Your task to perform on an android device: allow notifications from all sites in the chrome app Image 0: 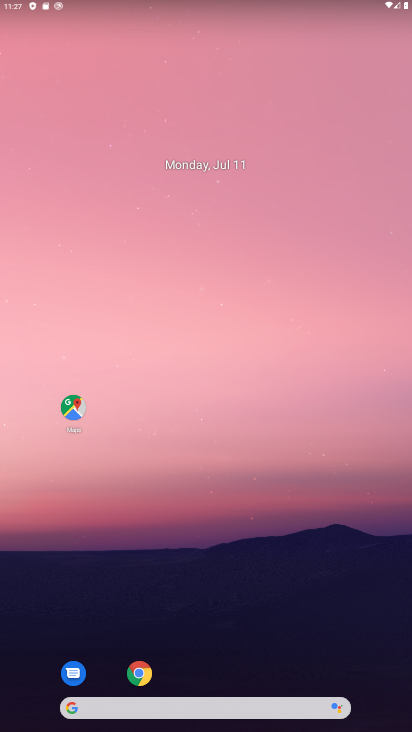
Step 0: drag from (228, 539) to (258, 288)
Your task to perform on an android device: allow notifications from all sites in the chrome app Image 1: 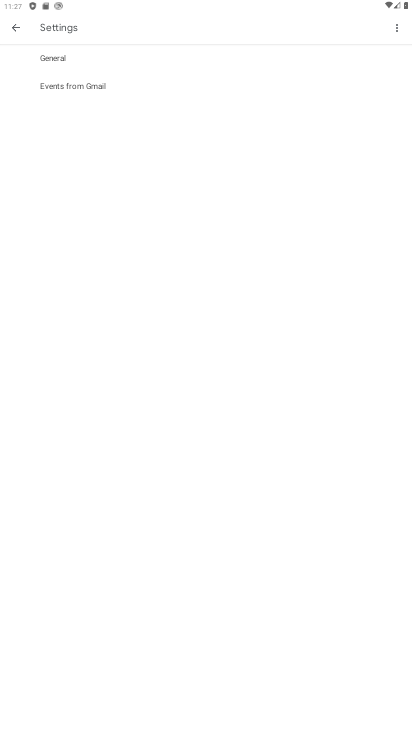
Step 1: press home button
Your task to perform on an android device: allow notifications from all sites in the chrome app Image 2: 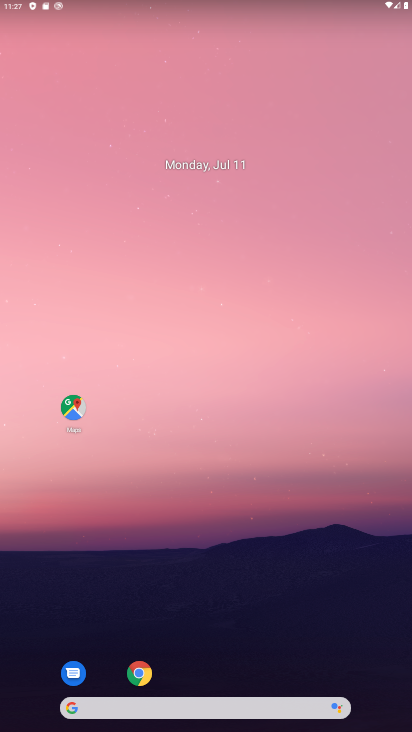
Step 2: drag from (140, 692) to (167, 375)
Your task to perform on an android device: allow notifications from all sites in the chrome app Image 3: 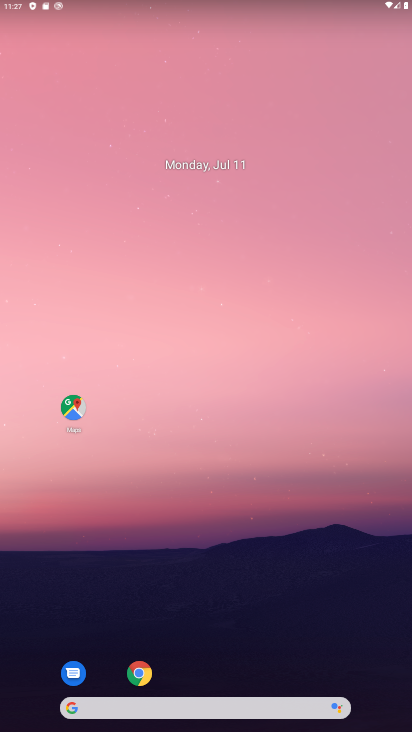
Step 3: drag from (232, 684) to (232, 227)
Your task to perform on an android device: allow notifications from all sites in the chrome app Image 4: 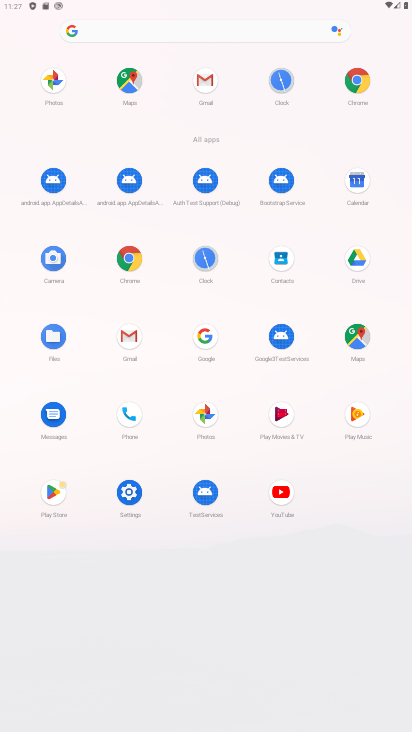
Step 4: click (128, 263)
Your task to perform on an android device: allow notifications from all sites in the chrome app Image 5: 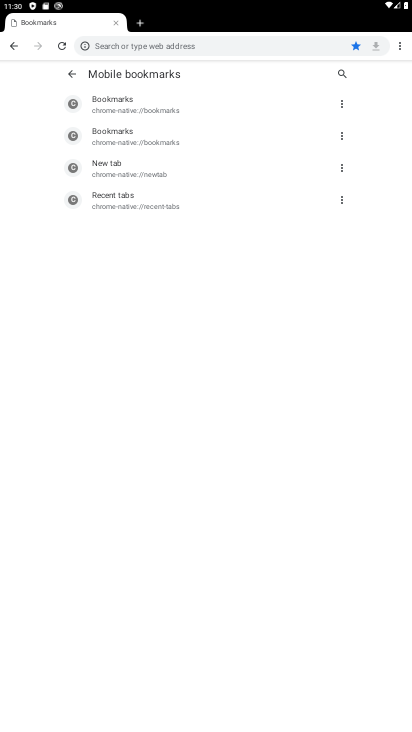
Step 5: press home button
Your task to perform on an android device: allow notifications from all sites in the chrome app Image 6: 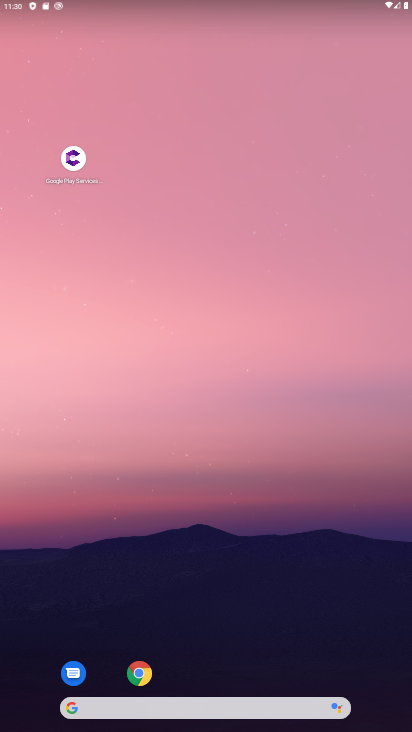
Step 6: click (136, 671)
Your task to perform on an android device: allow notifications from all sites in the chrome app Image 7: 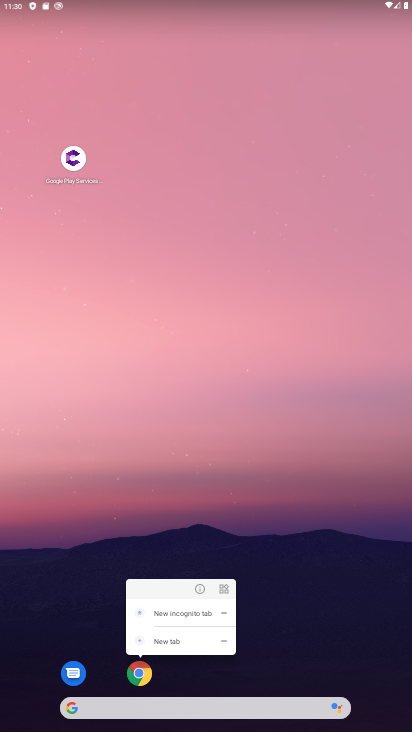
Step 7: click (136, 671)
Your task to perform on an android device: allow notifications from all sites in the chrome app Image 8: 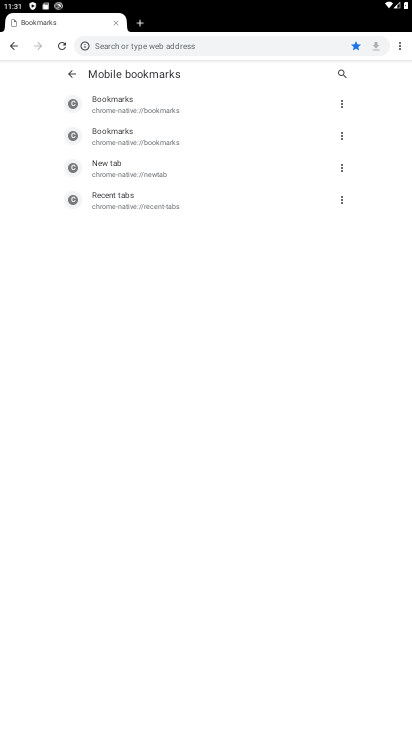
Step 8: click (13, 46)
Your task to perform on an android device: allow notifications from all sites in the chrome app Image 9: 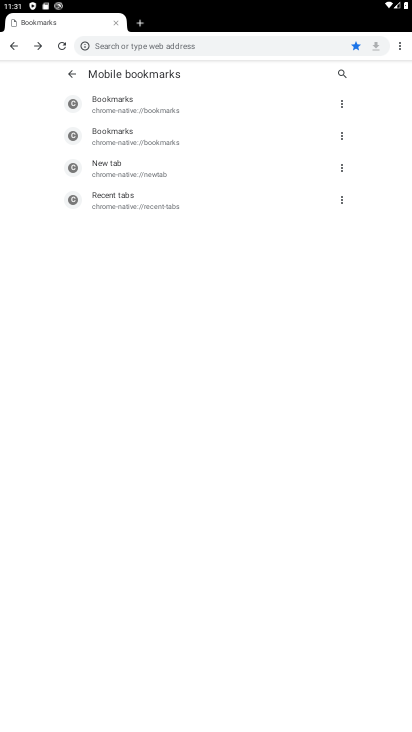
Step 9: click (12, 42)
Your task to perform on an android device: allow notifications from all sites in the chrome app Image 10: 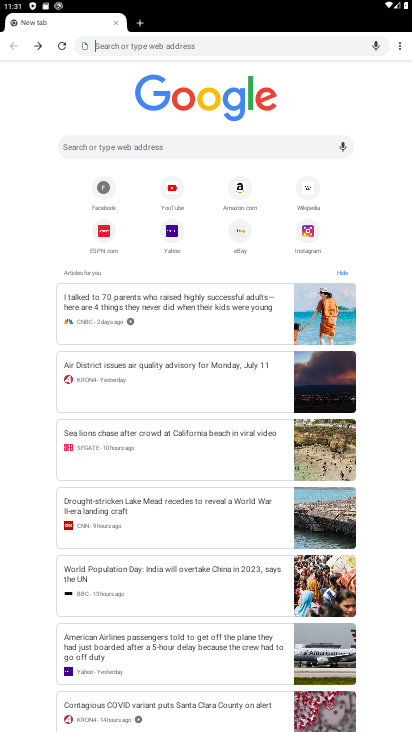
Step 10: click (400, 42)
Your task to perform on an android device: allow notifications from all sites in the chrome app Image 11: 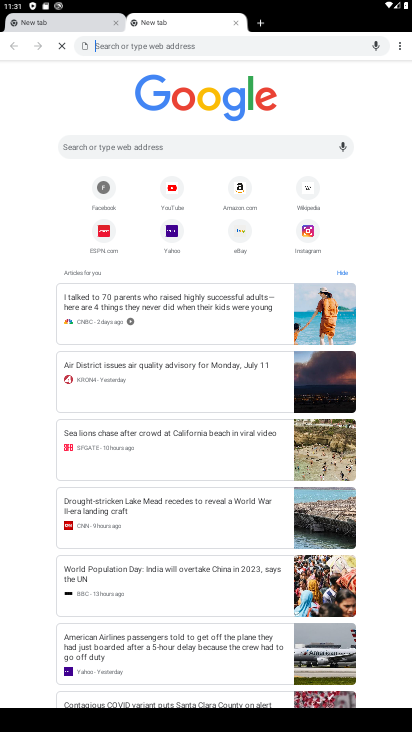
Step 11: click (400, 42)
Your task to perform on an android device: allow notifications from all sites in the chrome app Image 12: 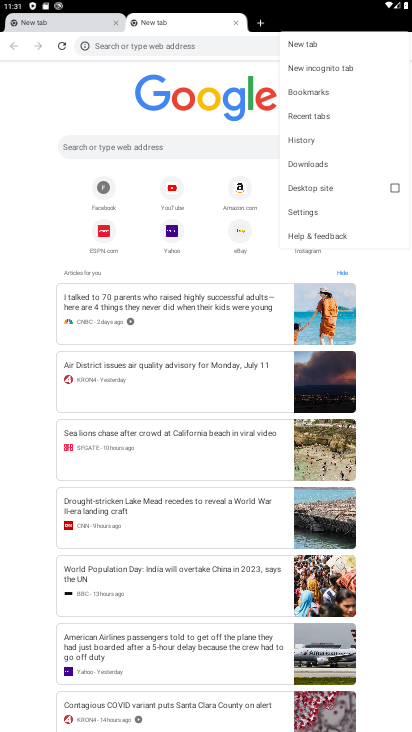
Step 12: click (303, 213)
Your task to perform on an android device: allow notifications from all sites in the chrome app Image 13: 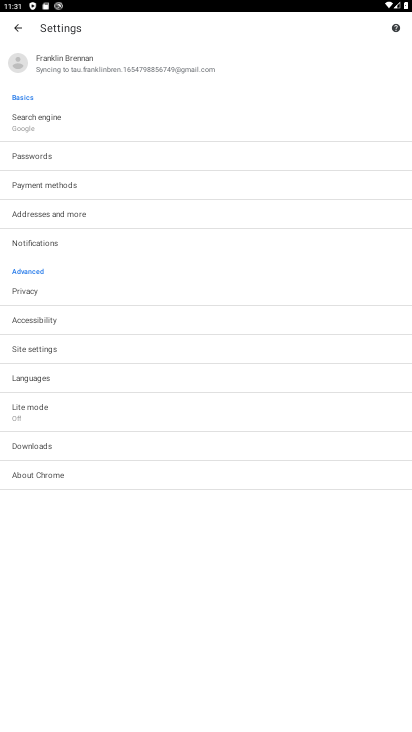
Step 13: click (19, 346)
Your task to perform on an android device: allow notifications from all sites in the chrome app Image 14: 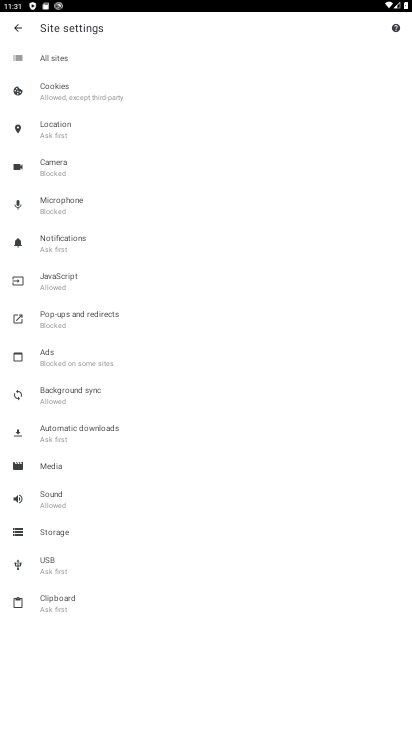
Step 14: click (60, 242)
Your task to perform on an android device: allow notifications from all sites in the chrome app Image 15: 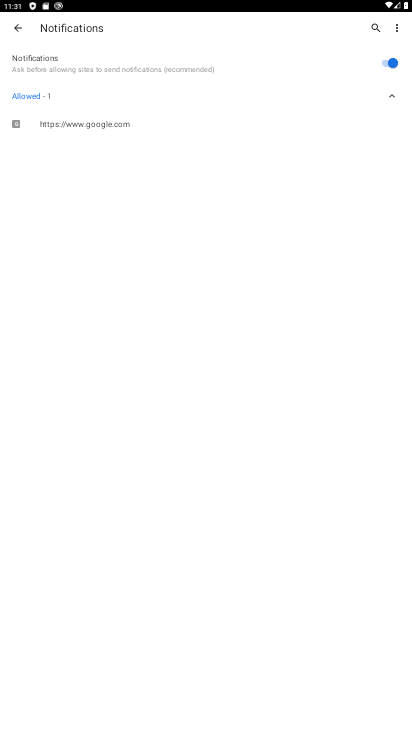
Step 15: task complete